Your task to perform on an android device: check out phone information Image 0: 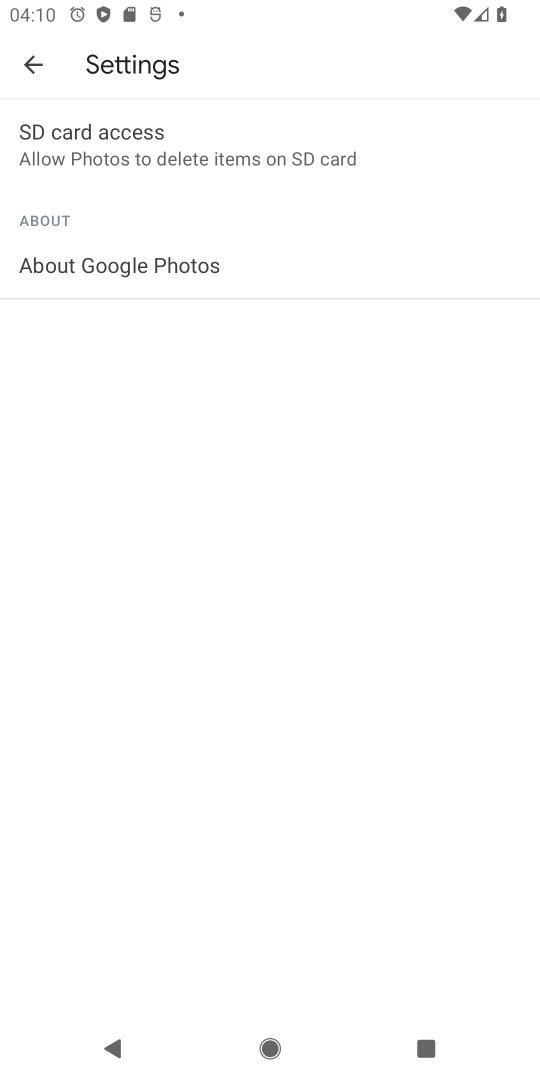
Step 0: press home button
Your task to perform on an android device: check out phone information Image 1: 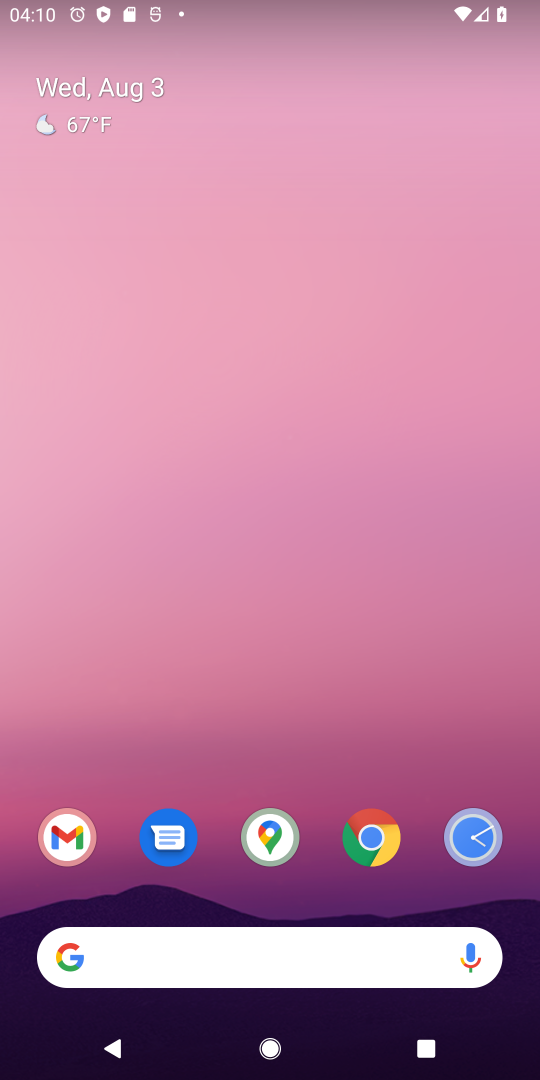
Step 1: drag from (418, 873) to (415, 49)
Your task to perform on an android device: check out phone information Image 2: 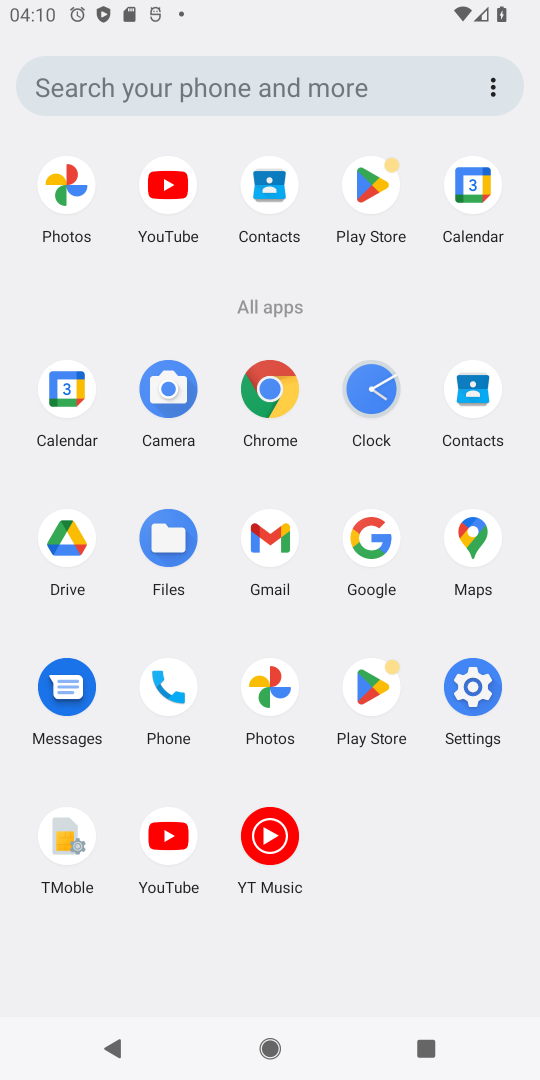
Step 2: click (475, 689)
Your task to perform on an android device: check out phone information Image 3: 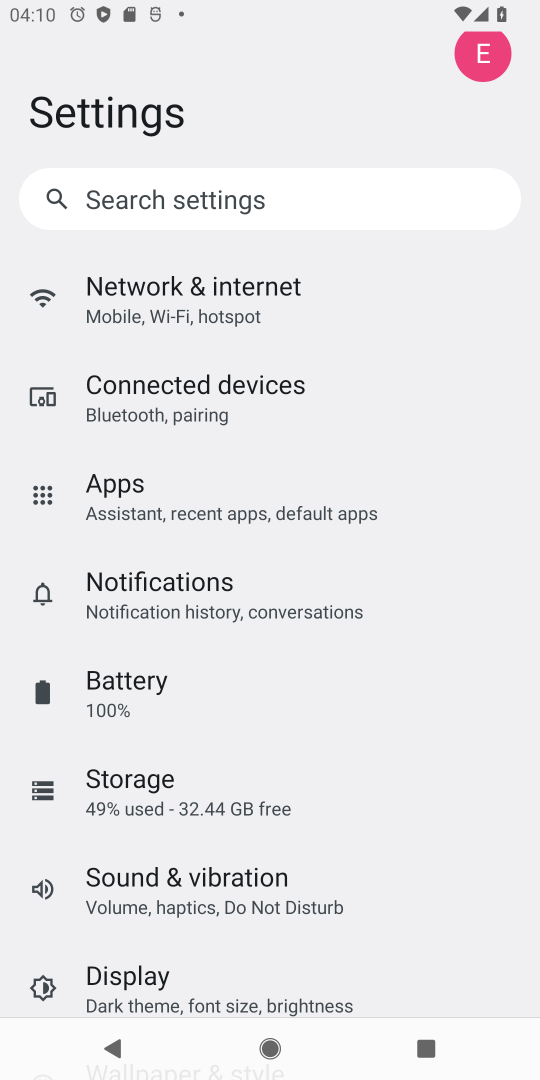
Step 3: drag from (399, 867) to (395, 234)
Your task to perform on an android device: check out phone information Image 4: 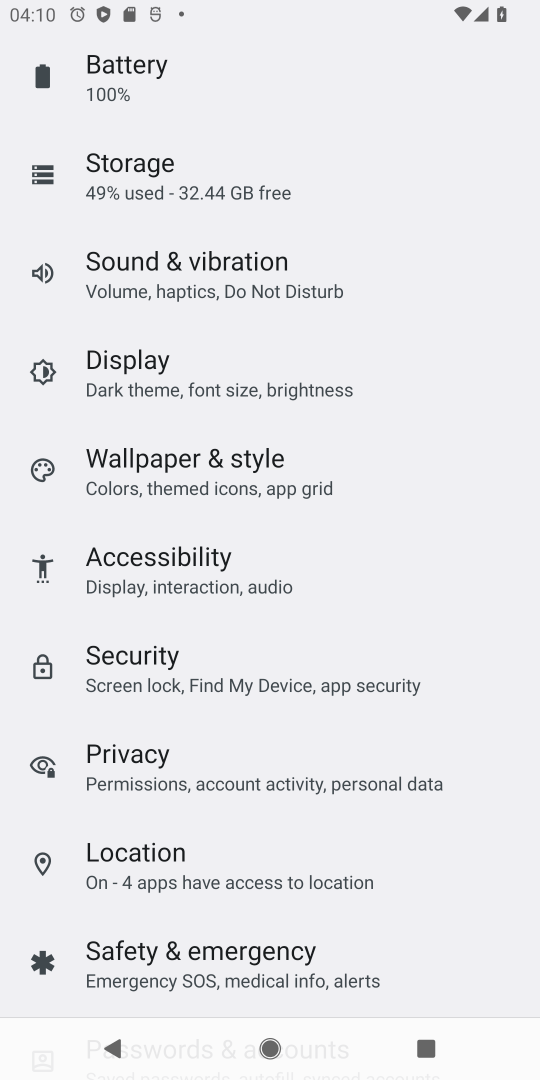
Step 4: drag from (389, 930) to (382, 206)
Your task to perform on an android device: check out phone information Image 5: 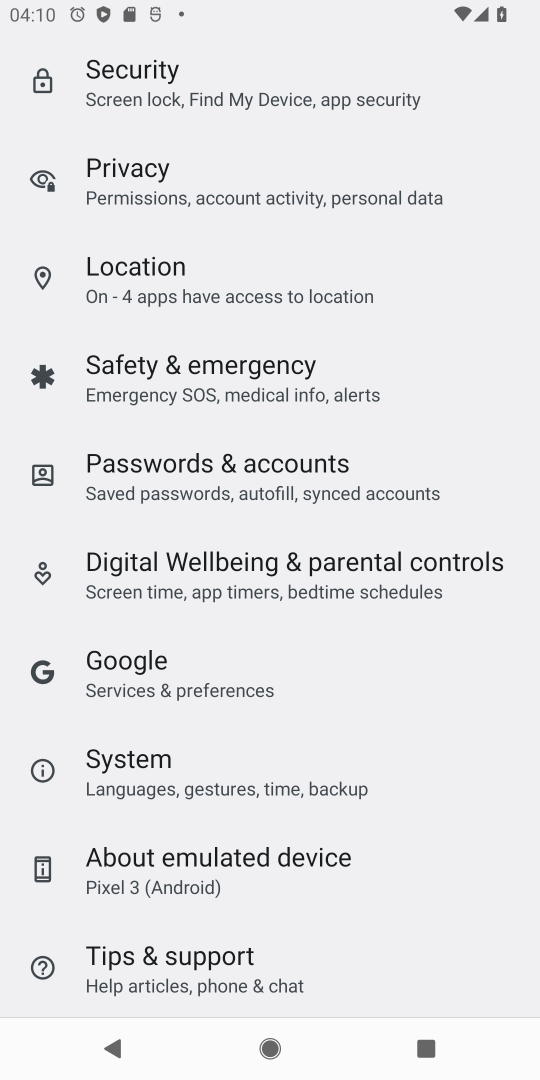
Step 5: drag from (371, 882) to (372, 349)
Your task to perform on an android device: check out phone information Image 6: 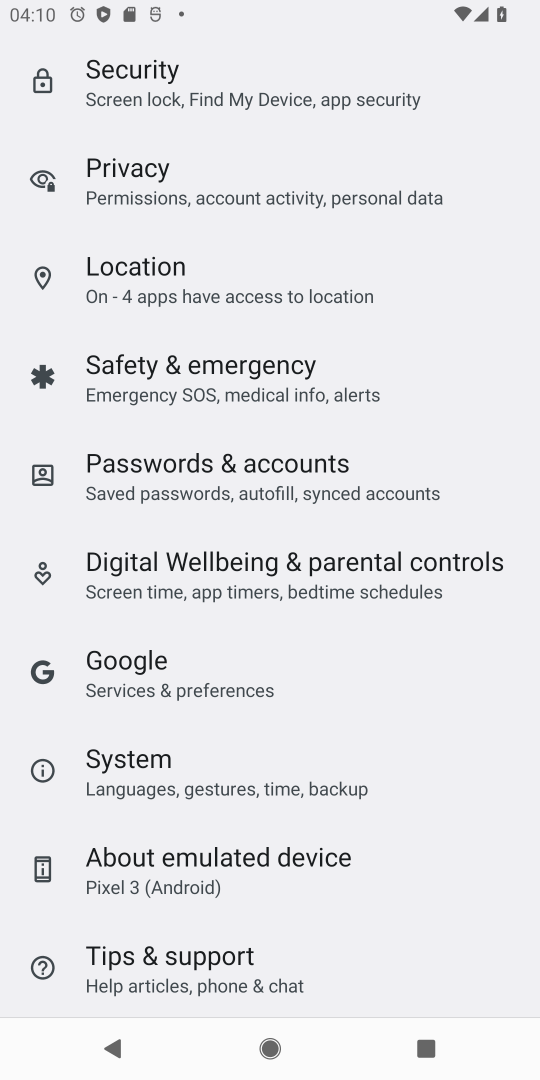
Step 6: click (159, 870)
Your task to perform on an android device: check out phone information Image 7: 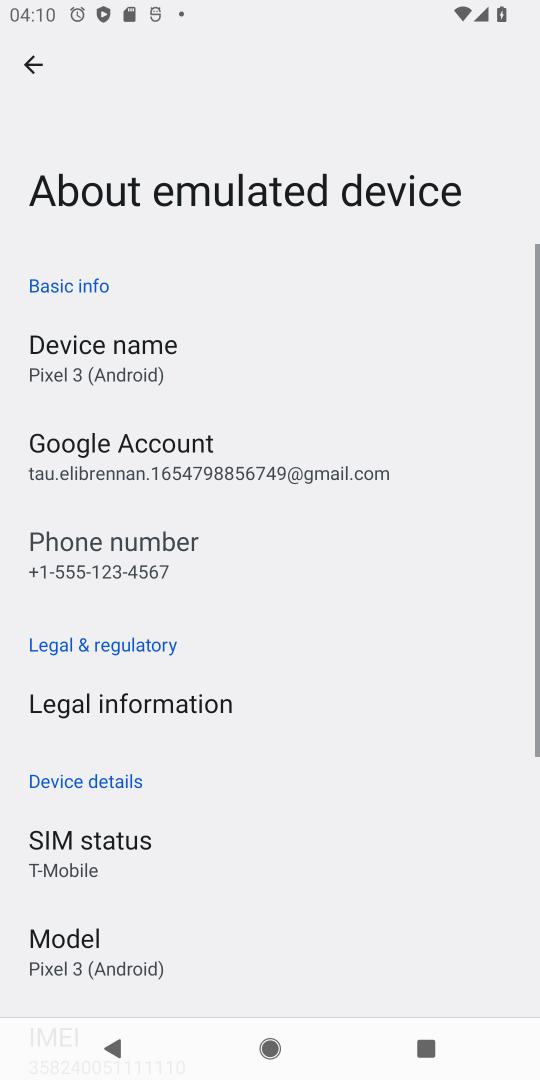
Step 7: task complete